Your task to perform on an android device: delete the emails in spam in the gmail app Image 0: 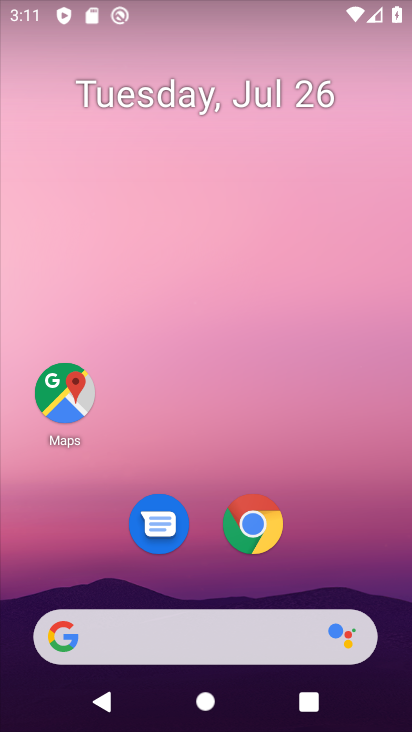
Step 0: drag from (325, 540) to (356, 38)
Your task to perform on an android device: delete the emails in spam in the gmail app Image 1: 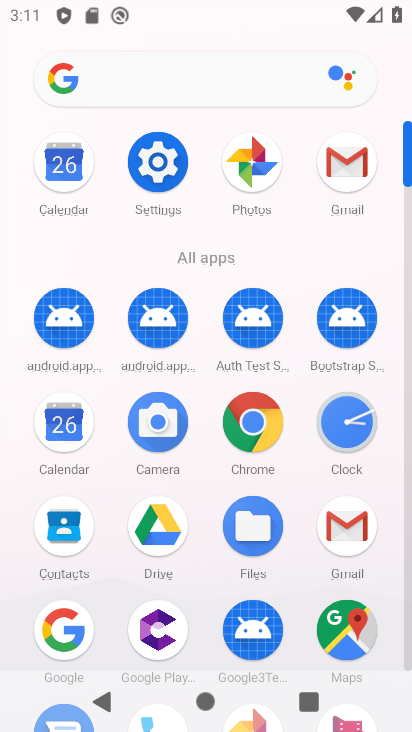
Step 1: click (351, 161)
Your task to perform on an android device: delete the emails in spam in the gmail app Image 2: 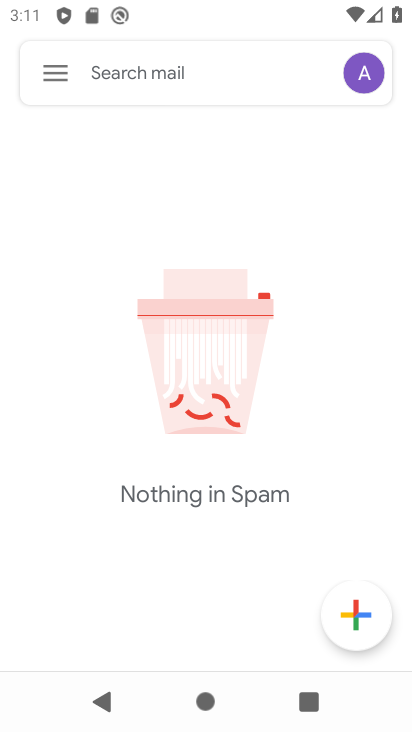
Step 2: task complete